Your task to perform on an android device: Open CNN.com Image 0: 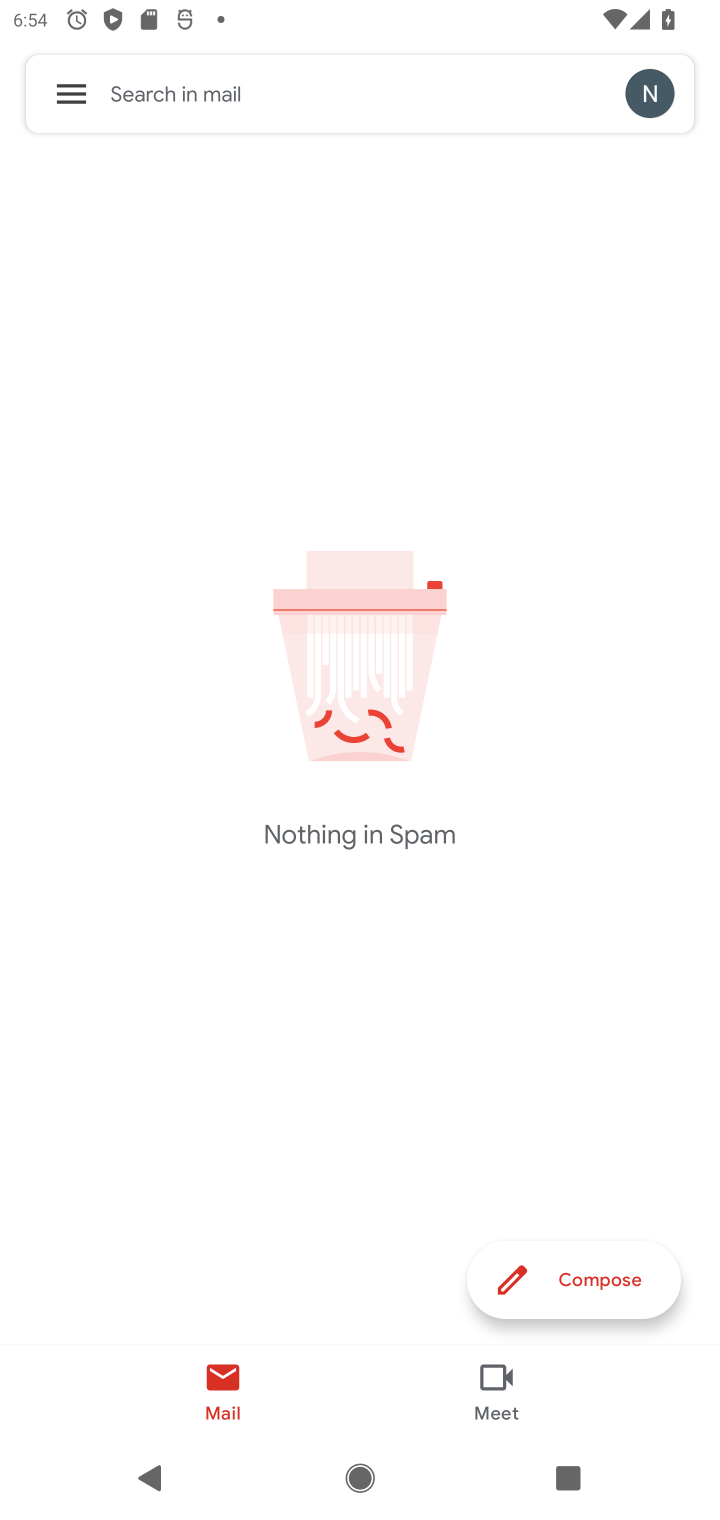
Step 0: press home button
Your task to perform on an android device: Open CNN.com Image 1: 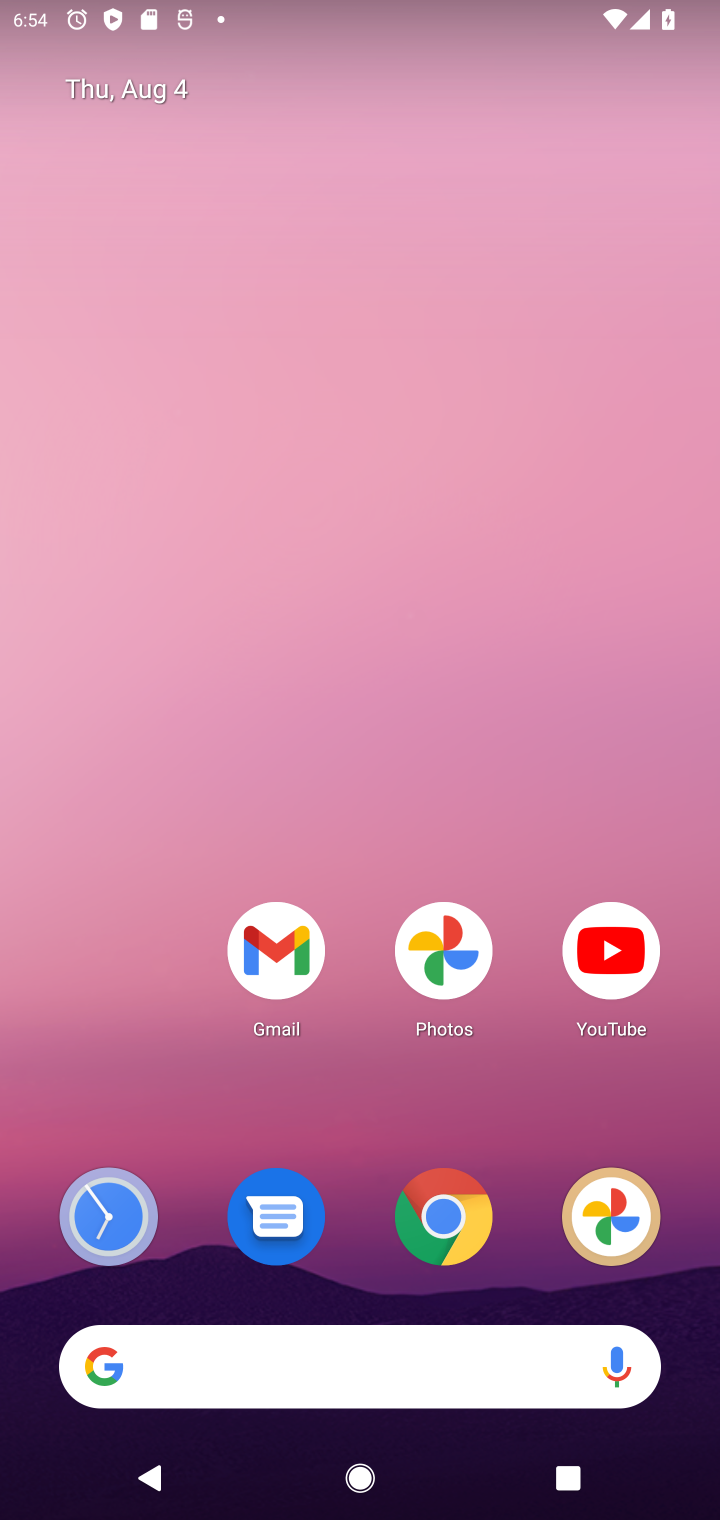
Step 1: click (466, 1215)
Your task to perform on an android device: Open CNN.com Image 2: 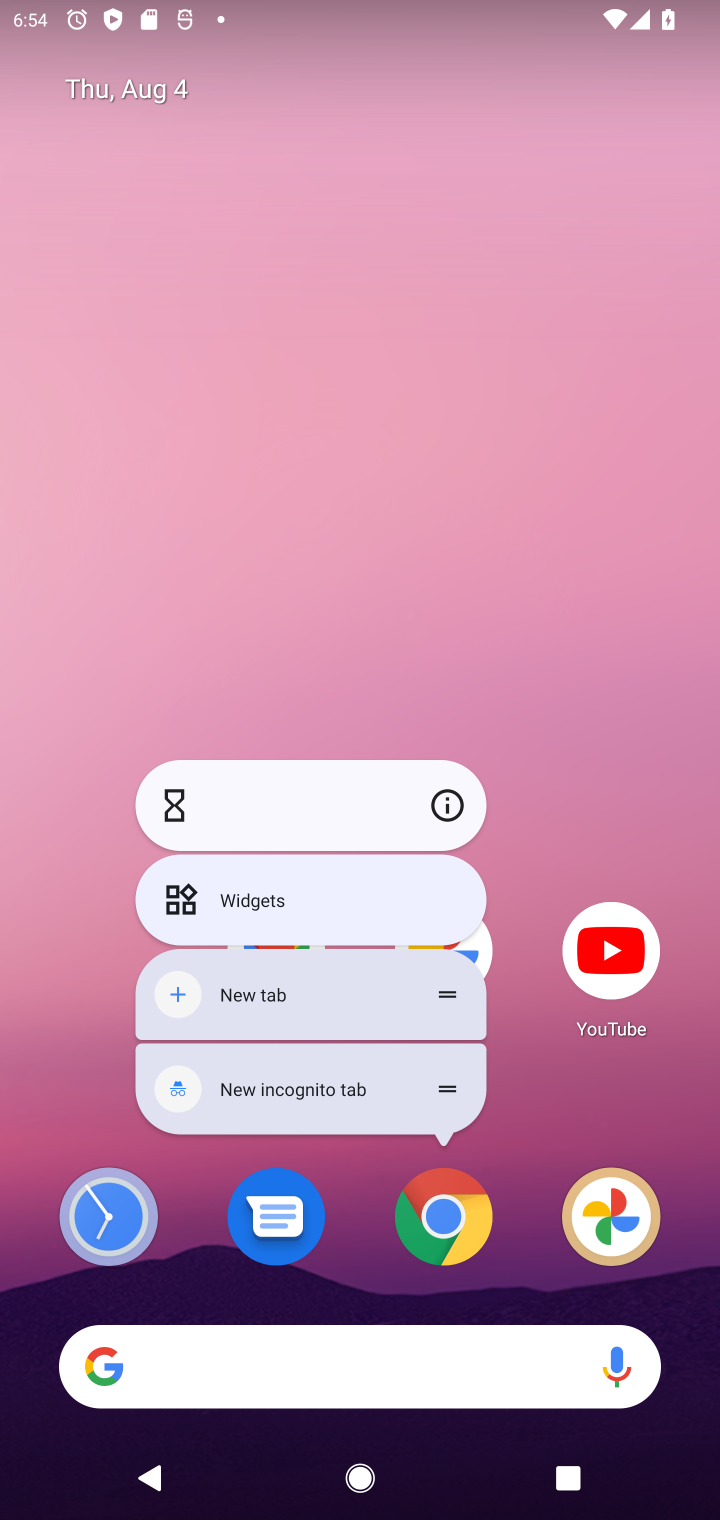
Step 2: click (475, 1216)
Your task to perform on an android device: Open CNN.com Image 3: 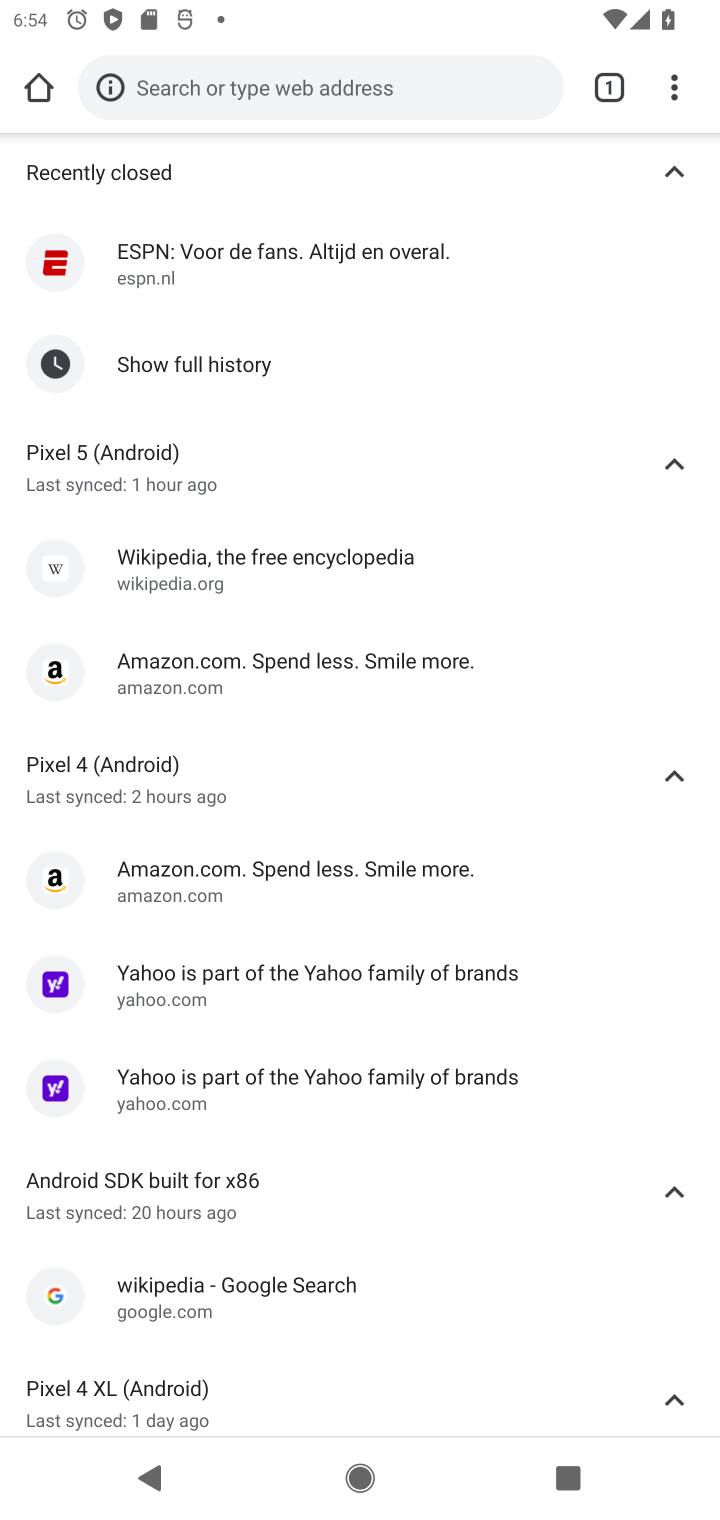
Step 3: click (492, 81)
Your task to perform on an android device: Open CNN.com Image 4: 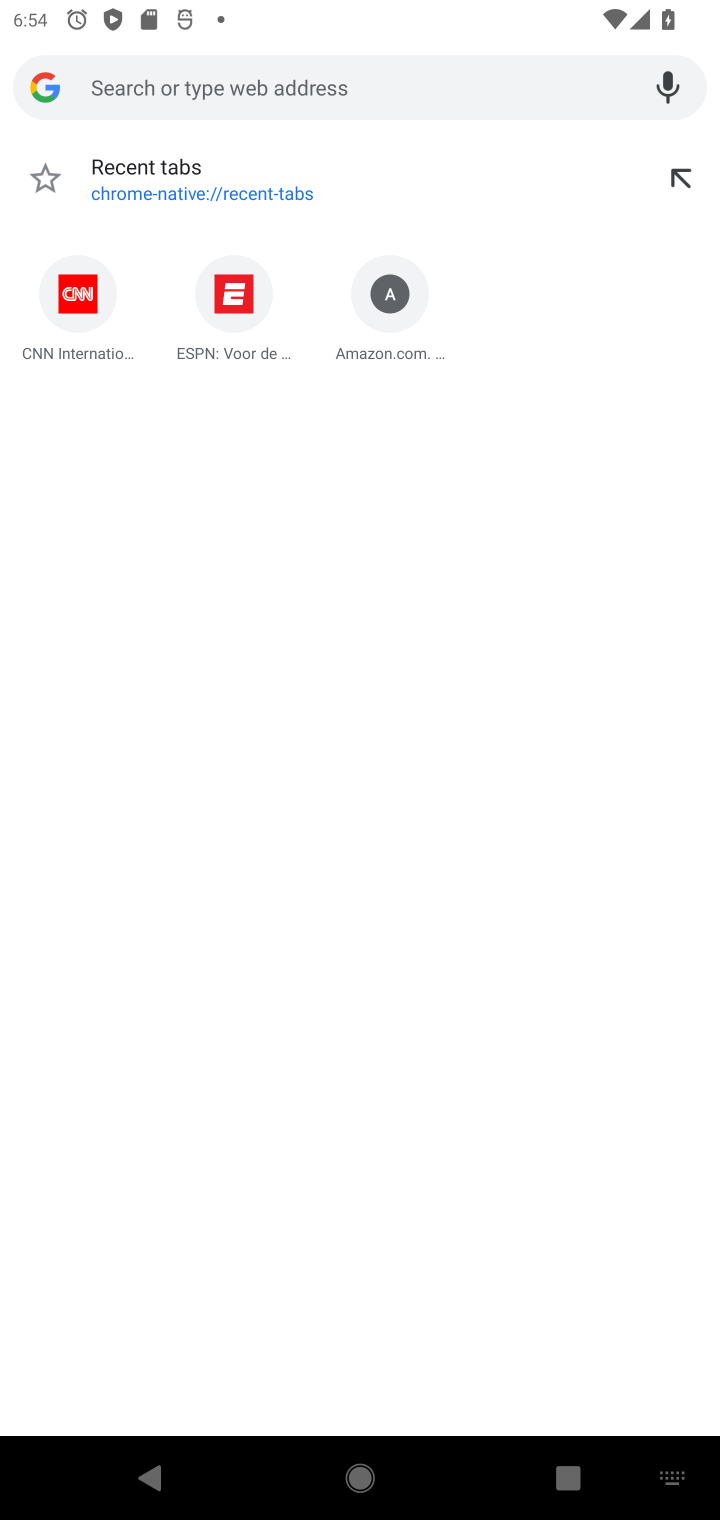
Step 4: type "cnn.com"
Your task to perform on an android device: Open CNN.com Image 5: 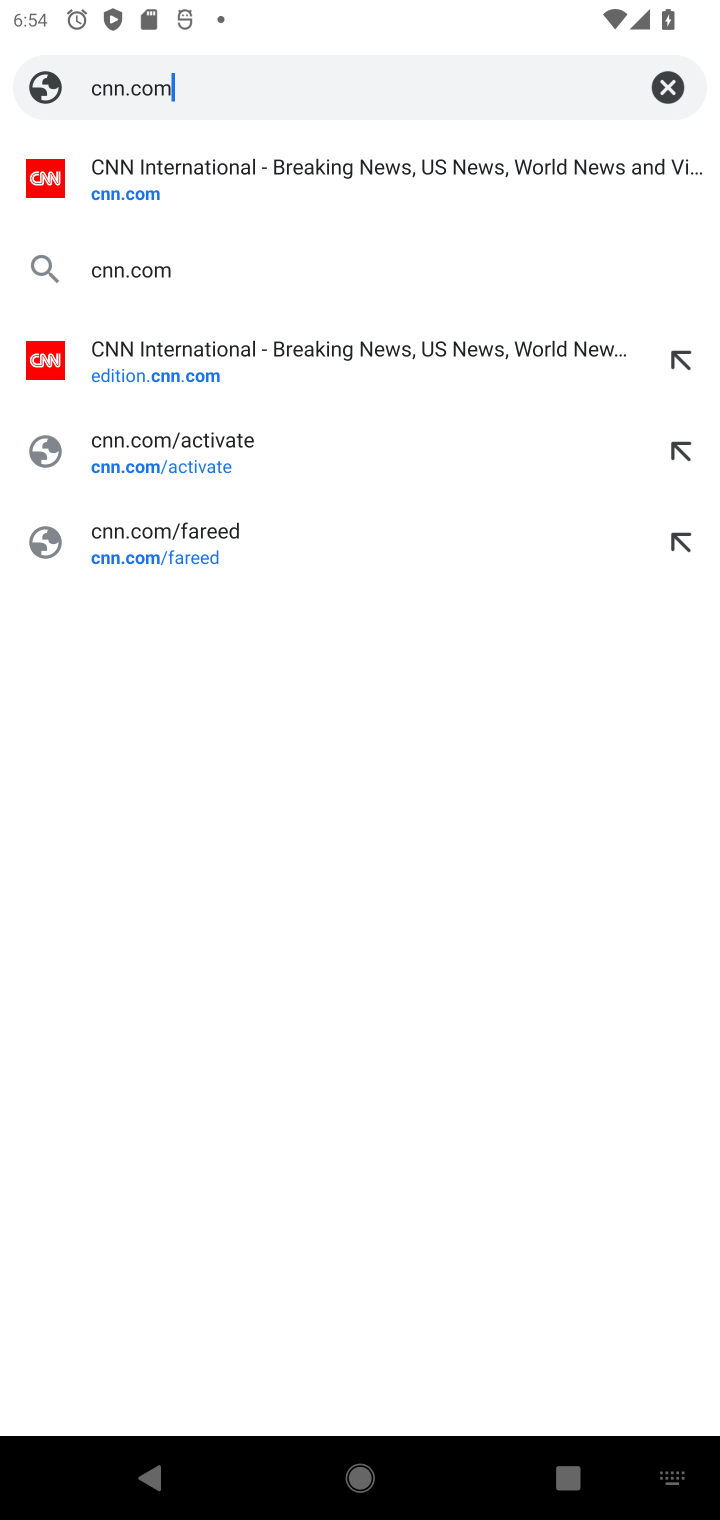
Step 5: click (236, 178)
Your task to perform on an android device: Open CNN.com Image 6: 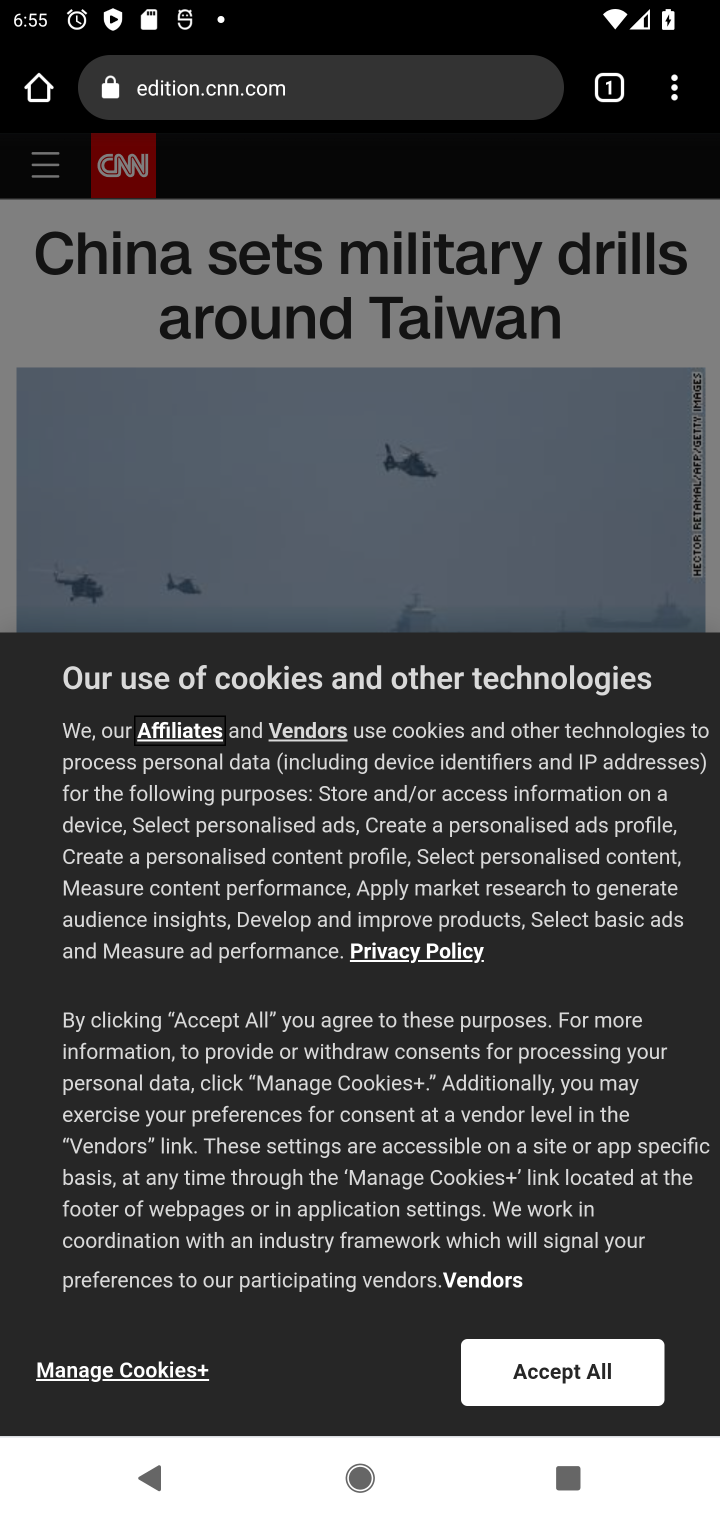
Step 6: task complete